Your task to perform on an android device: toggle pop-ups in chrome Image 0: 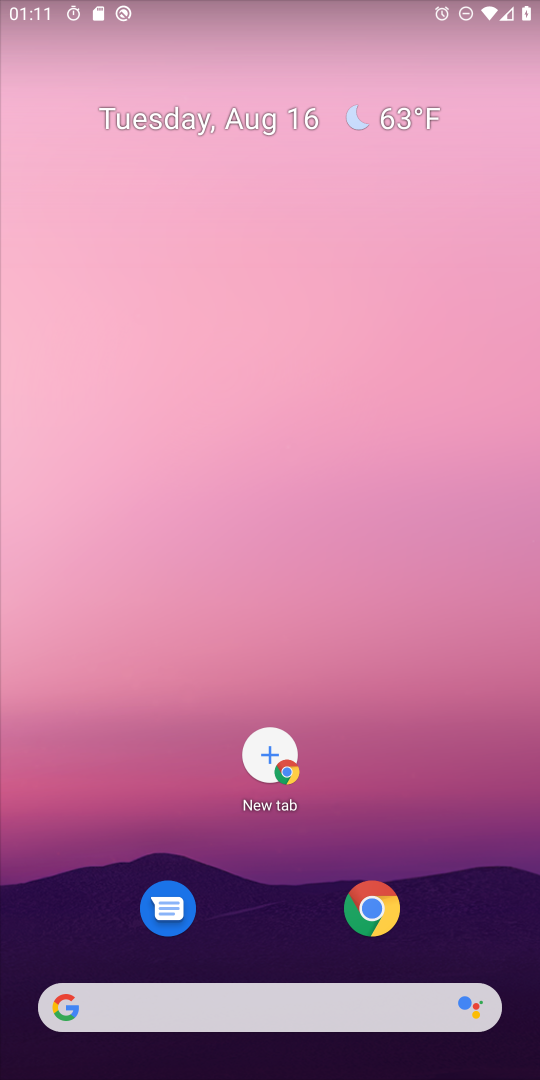
Step 0: click (374, 908)
Your task to perform on an android device: toggle pop-ups in chrome Image 1: 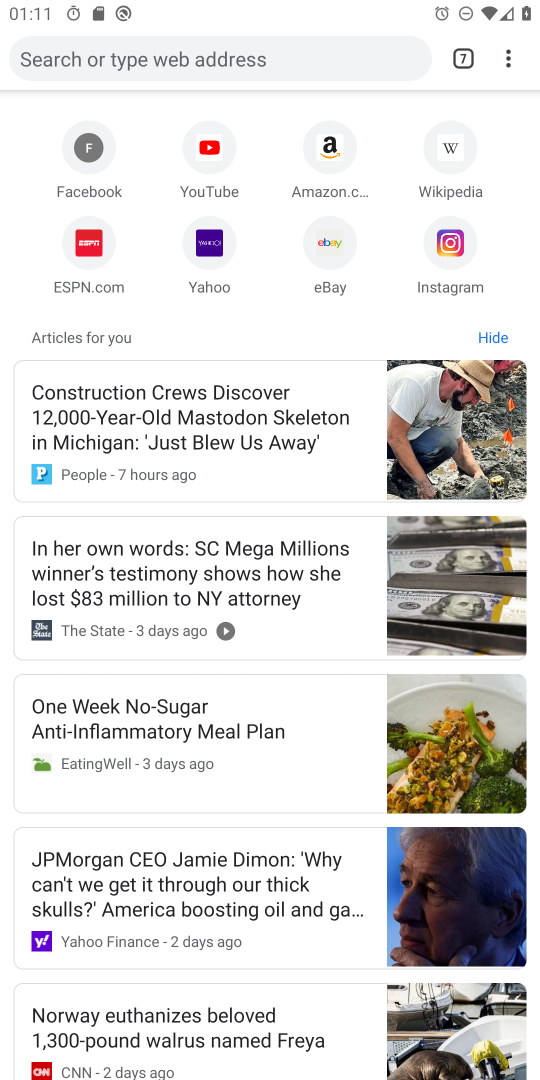
Step 1: click (515, 60)
Your task to perform on an android device: toggle pop-ups in chrome Image 2: 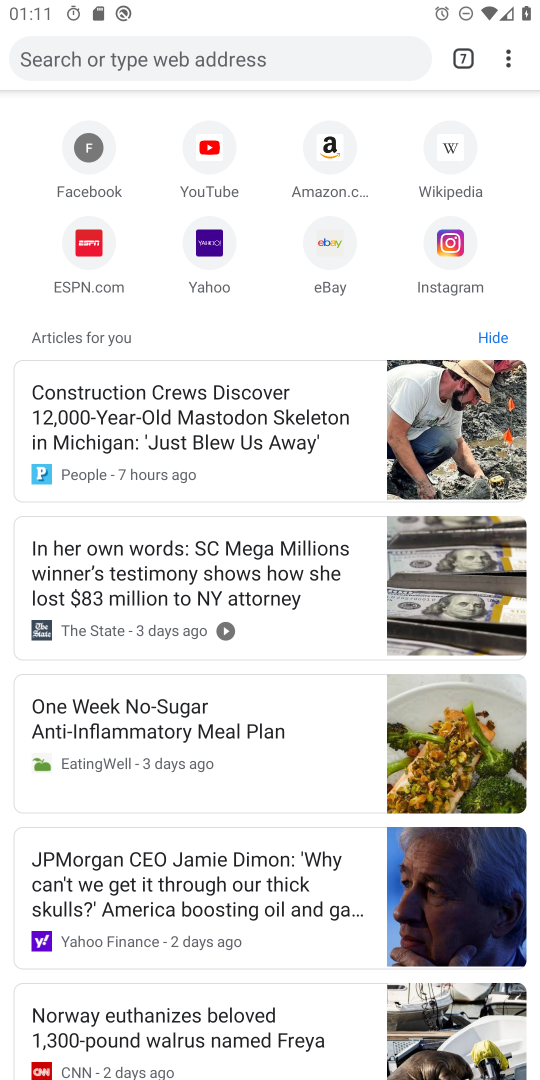
Step 2: click (515, 60)
Your task to perform on an android device: toggle pop-ups in chrome Image 3: 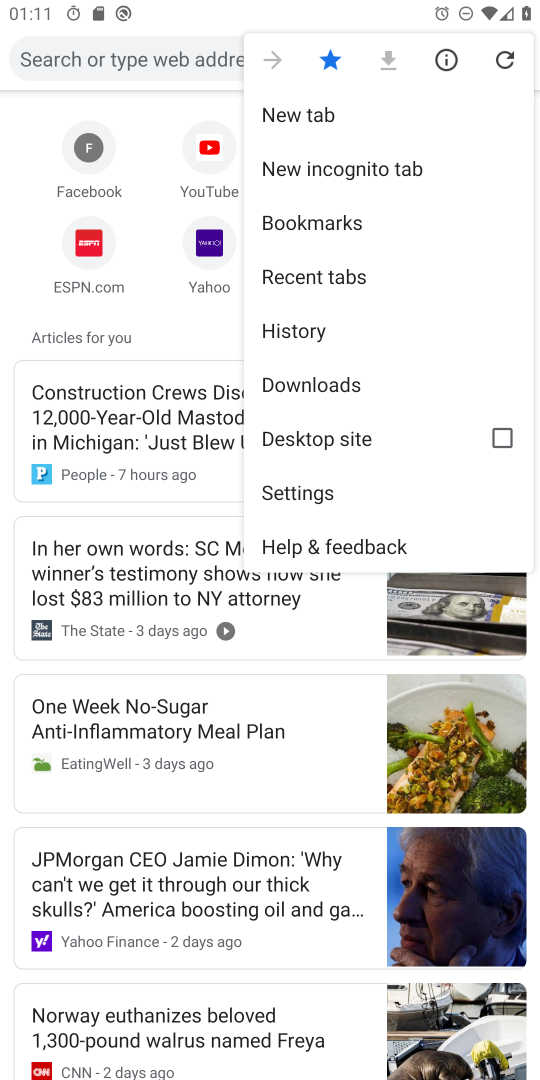
Step 3: click (340, 500)
Your task to perform on an android device: toggle pop-ups in chrome Image 4: 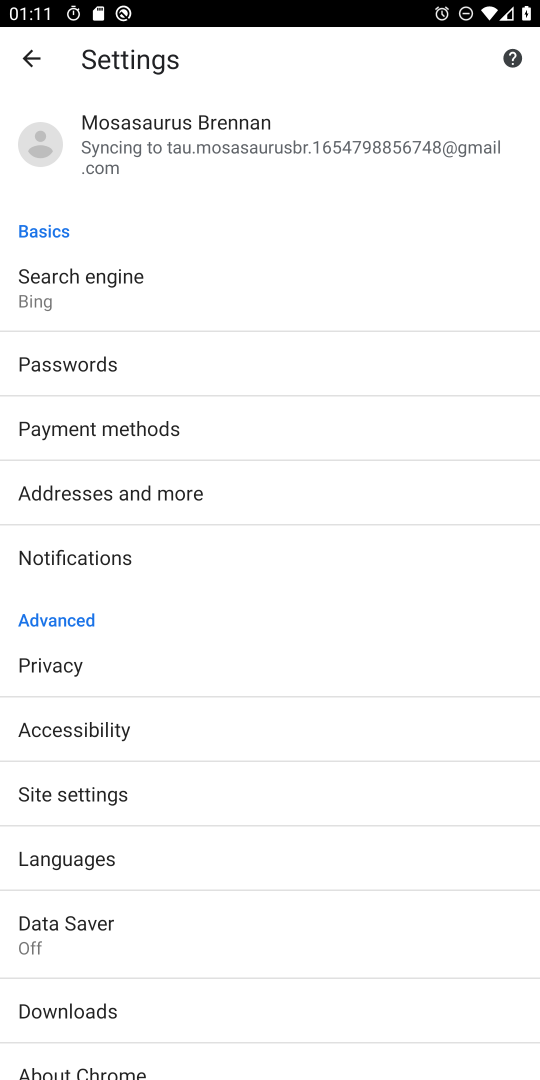
Step 4: click (144, 787)
Your task to perform on an android device: toggle pop-ups in chrome Image 5: 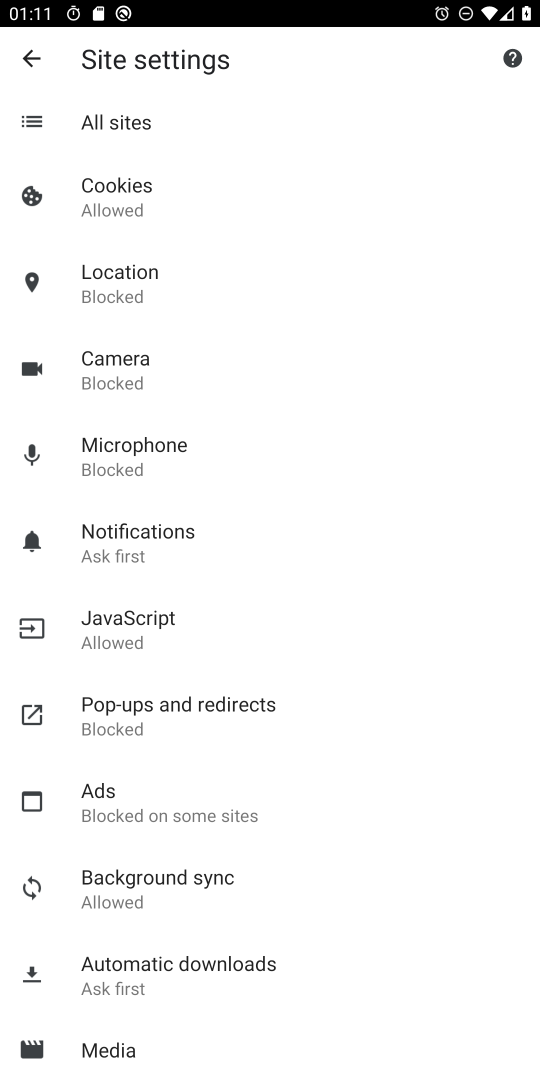
Step 5: click (84, 701)
Your task to perform on an android device: toggle pop-ups in chrome Image 6: 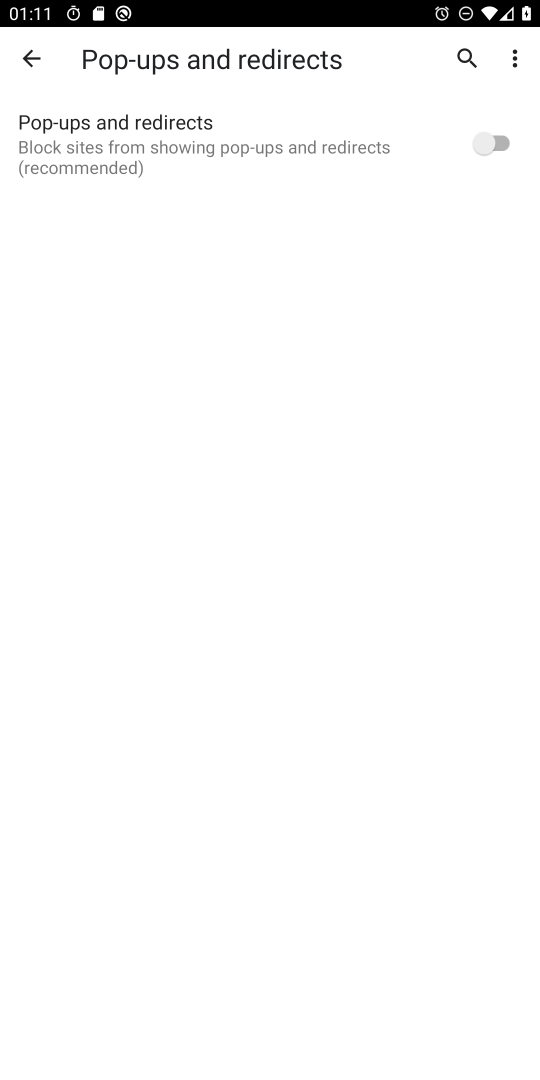
Step 6: click (485, 135)
Your task to perform on an android device: toggle pop-ups in chrome Image 7: 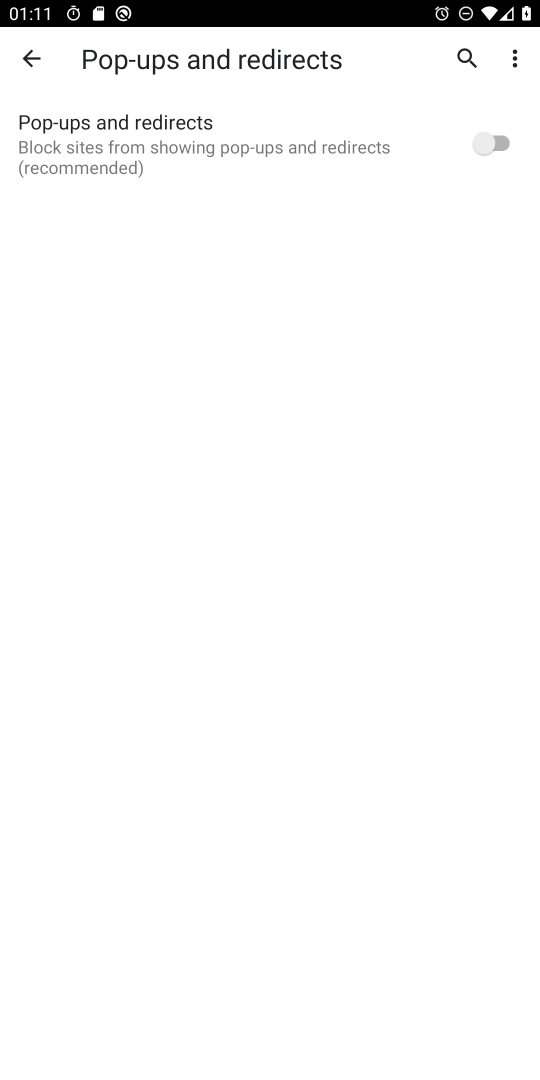
Step 7: click (485, 135)
Your task to perform on an android device: toggle pop-ups in chrome Image 8: 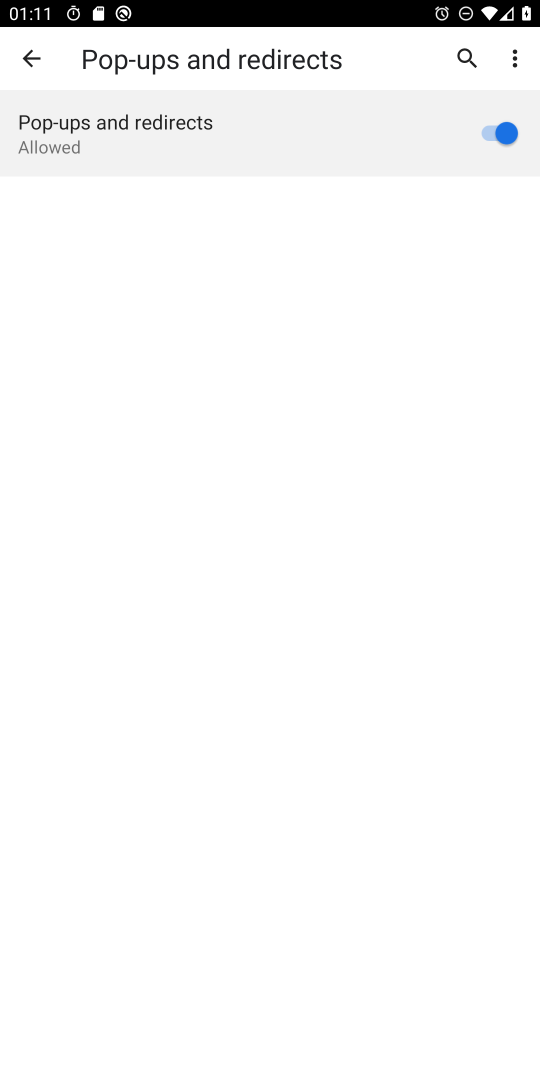
Step 8: click (485, 135)
Your task to perform on an android device: toggle pop-ups in chrome Image 9: 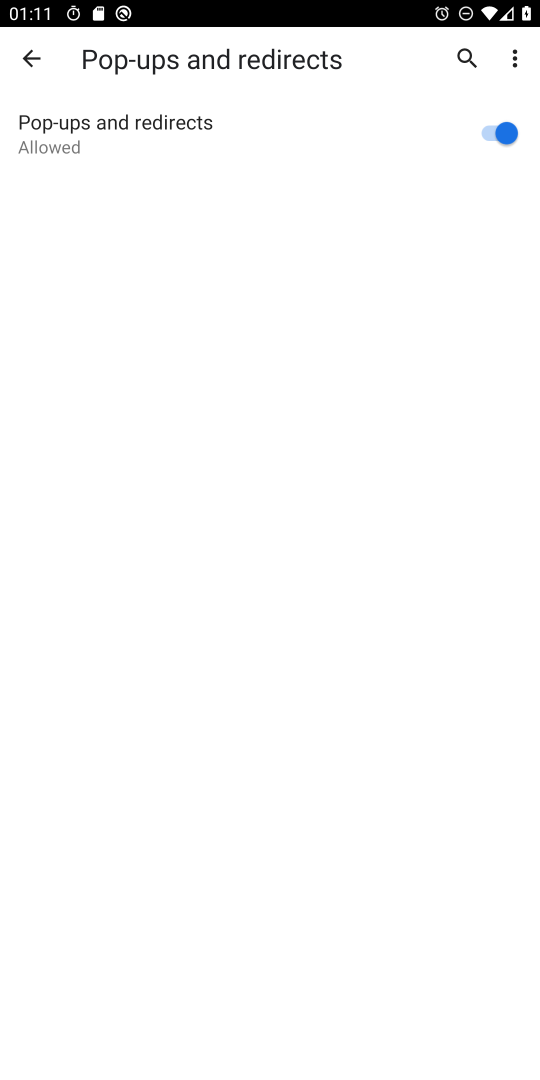
Step 9: task complete